Your task to perform on an android device: turn off wifi Image 0: 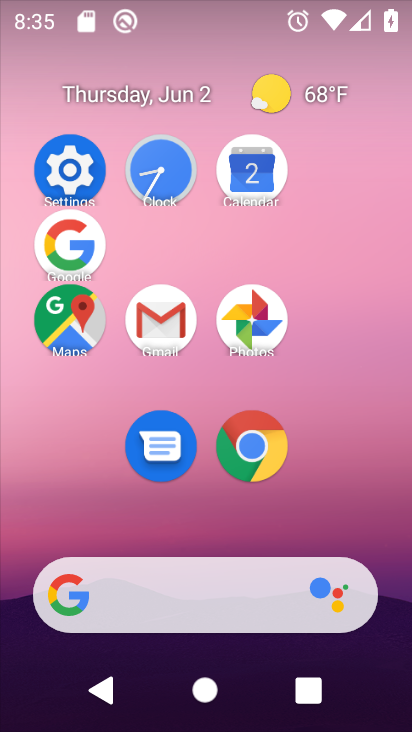
Step 0: click (67, 191)
Your task to perform on an android device: turn off wifi Image 1: 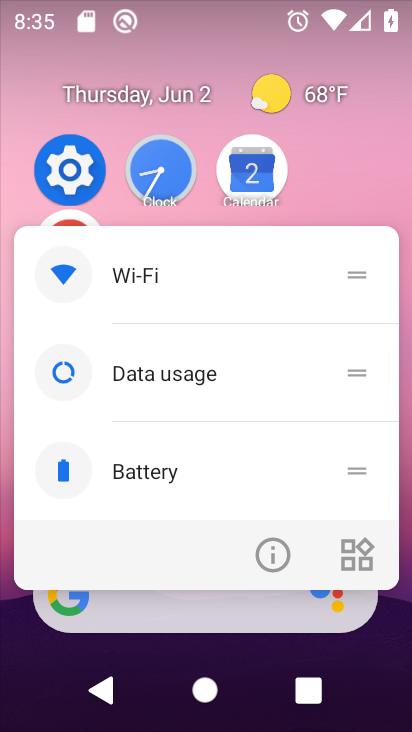
Step 1: click (83, 170)
Your task to perform on an android device: turn off wifi Image 2: 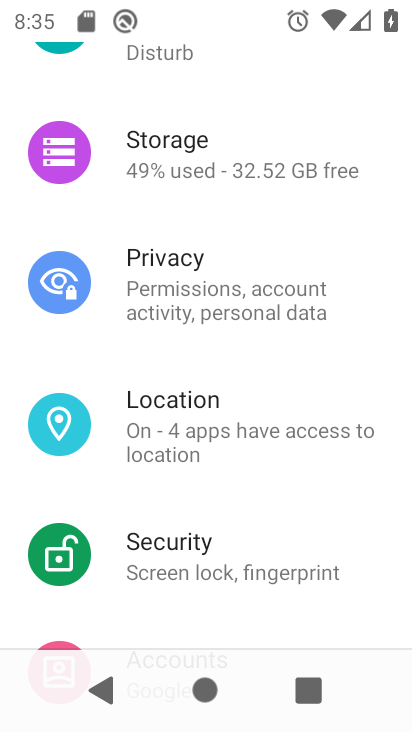
Step 2: drag from (335, 136) to (325, 683)
Your task to perform on an android device: turn off wifi Image 3: 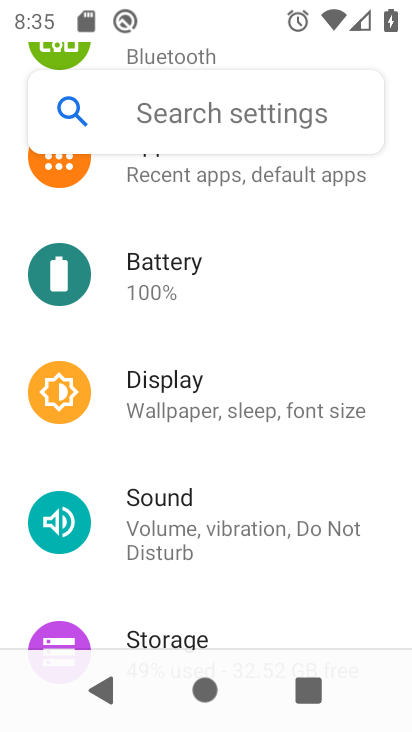
Step 3: drag from (292, 230) to (306, 618)
Your task to perform on an android device: turn off wifi Image 4: 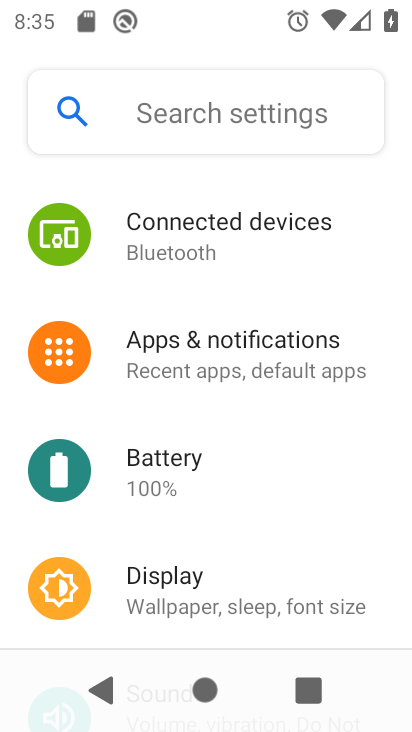
Step 4: drag from (288, 267) to (335, 599)
Your task to perform on an android device: turn off wifi Image 5: 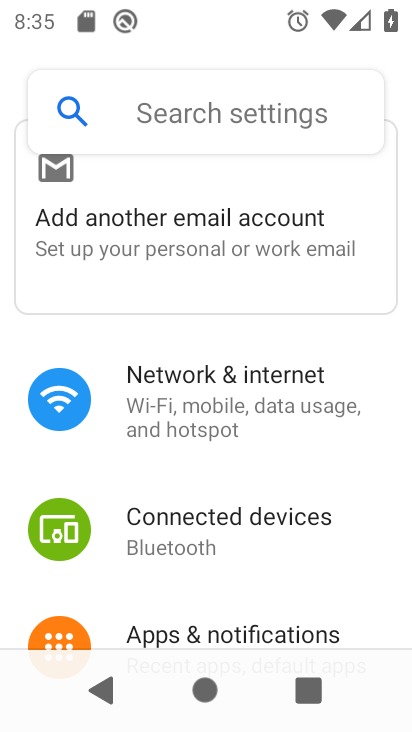
Step 5: click (295, 402)
Your task to perform on an android device: turn off wifi Image 6: 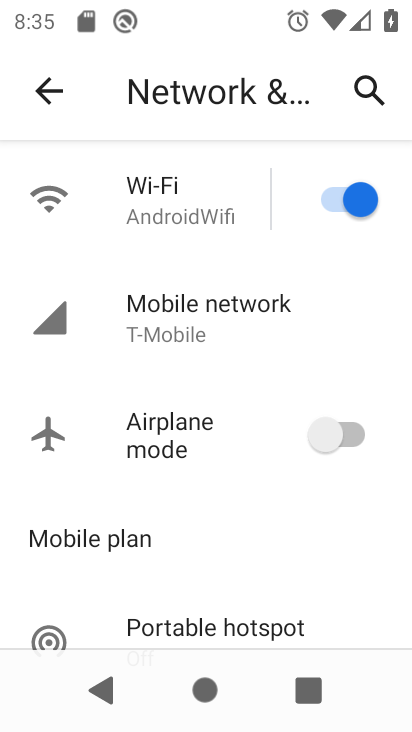
Step 6: click (348, 185)
Your task to perform on an android device: turn off wifi Image 7: 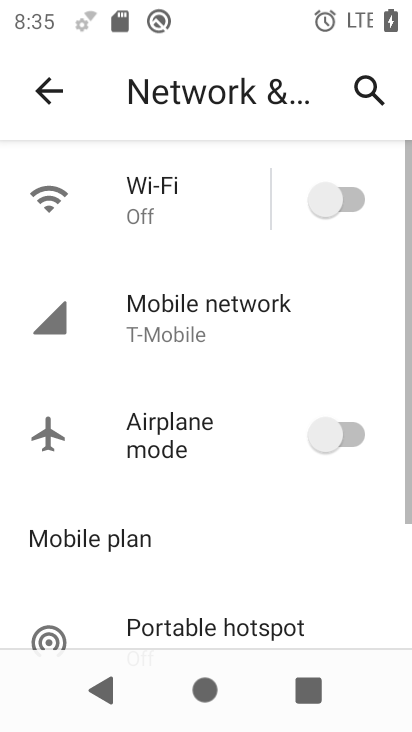
Step 7: task complete